Your task to perform on an android device: turn off sleep mode Image 0: 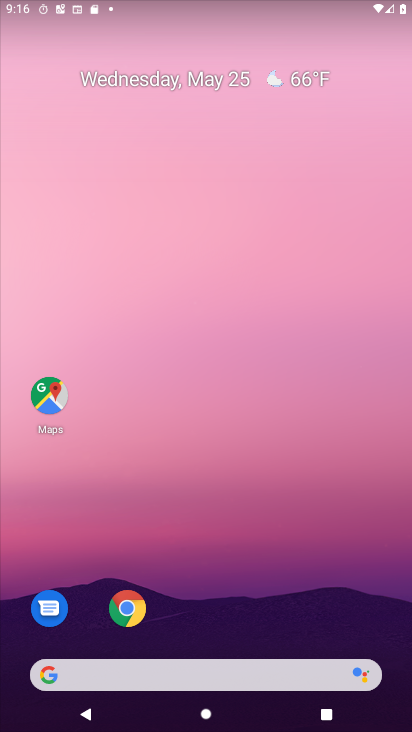
Step 0: drag from (232, 680) to (235, 88)
Your task to perform on an android device: turn off sleep mode Image 1: 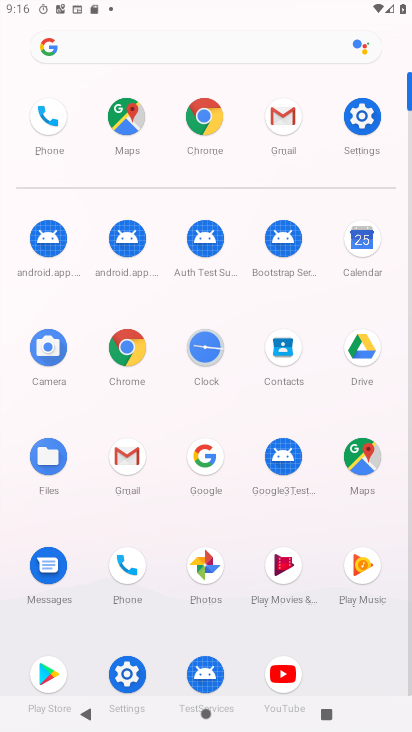
Step 1: click (361, 121)
Your task to perform on an android device: turn off sleep mode Image 2: 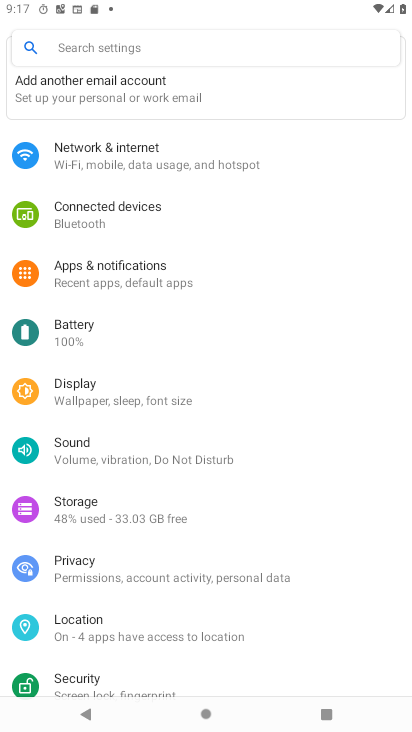
Step 2: click (112, 391)
Your task to perform on an android device: turn off sleep mode Image 3: 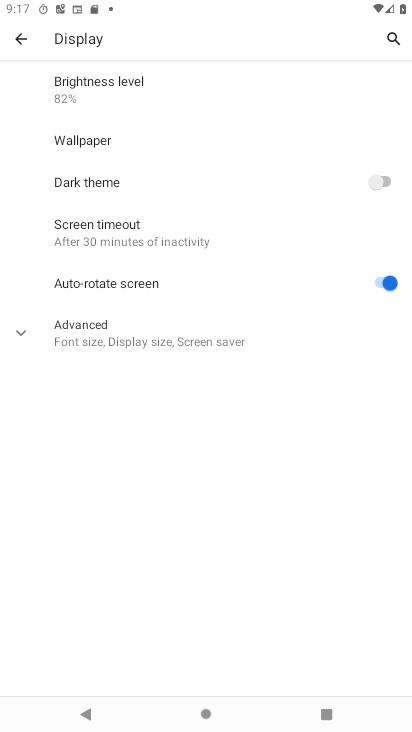
Step 3: click (22, 36)
Your task to perform on an android device: turn off sleep mode Image 4: 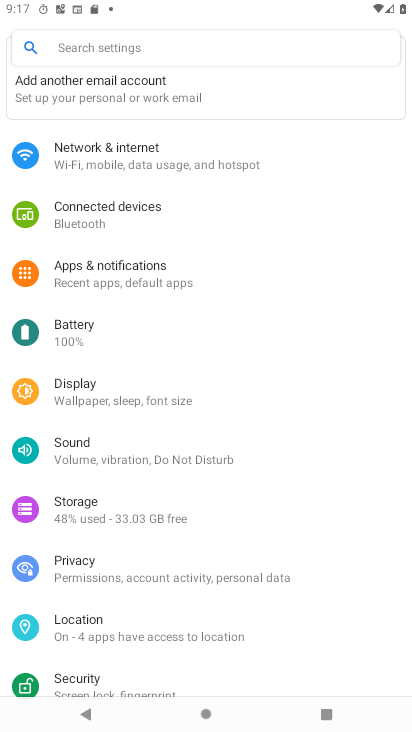
Step 4: task complete